Your task to perform on an android device: Open Wikipedia Image 0: 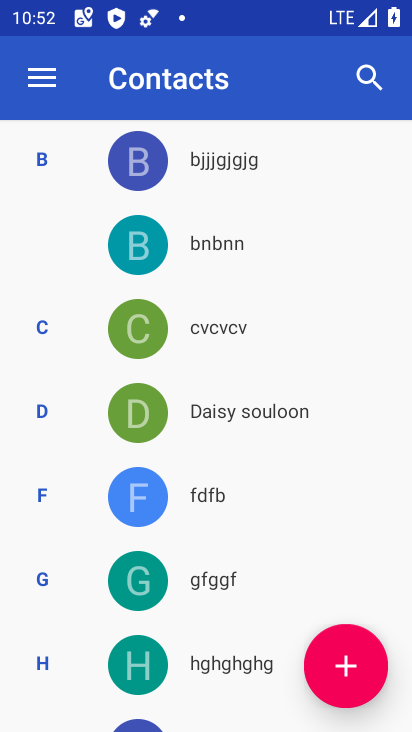
Step 0: press back button
Your task to perform on an android device: Open Wikipedia Image 1: 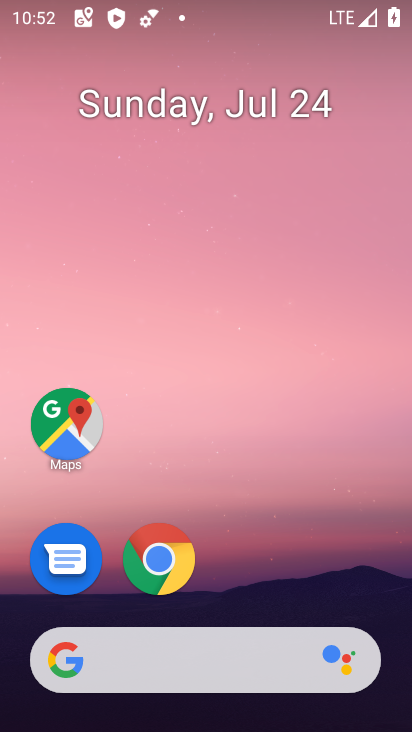
Step 1: click (156, 562)
Your task to perform on an android device: Open Wikipedia Image 2: 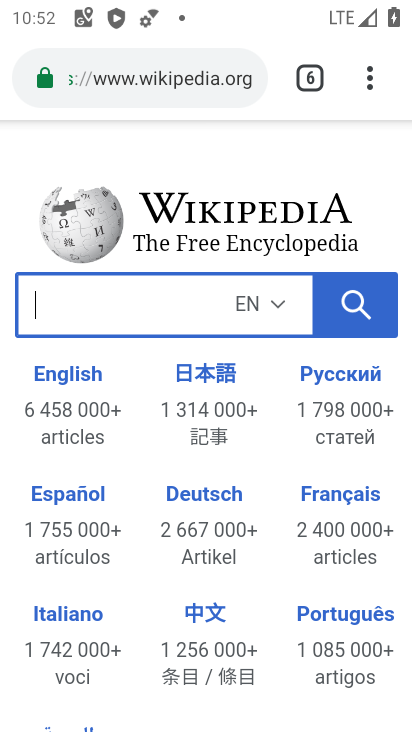
Step 2: task complete